Your task to perform on an android device: toggle javascript in the chrome app Image 0: 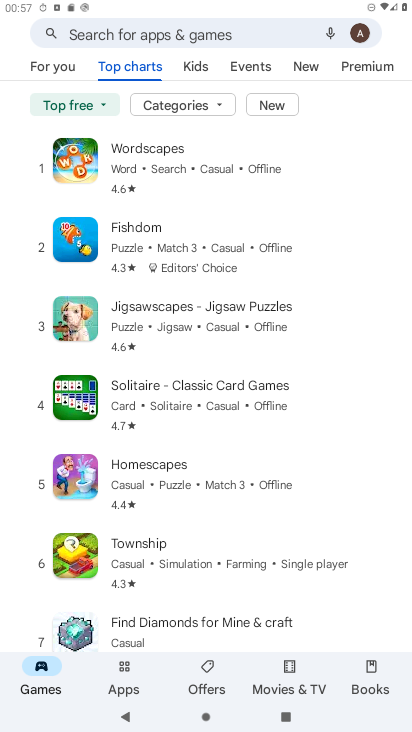
Step 0: press home button
Your task to perform on an android device: toggle javascript in the chrome app Image 1: 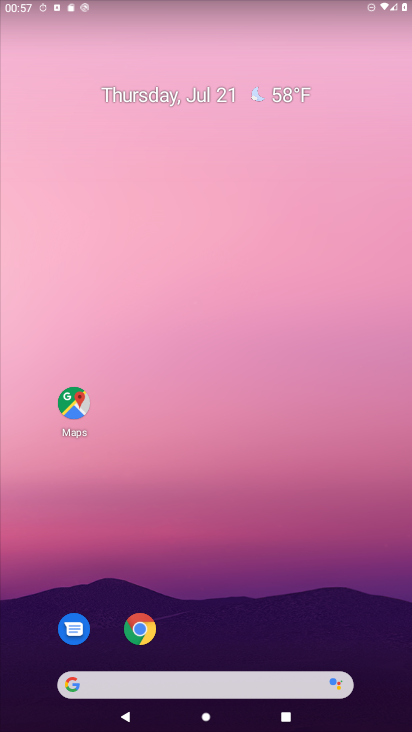
Step 1: click (132, 634)
Your task to perform on an android device: toggle javascript in the chrome app Image 2: 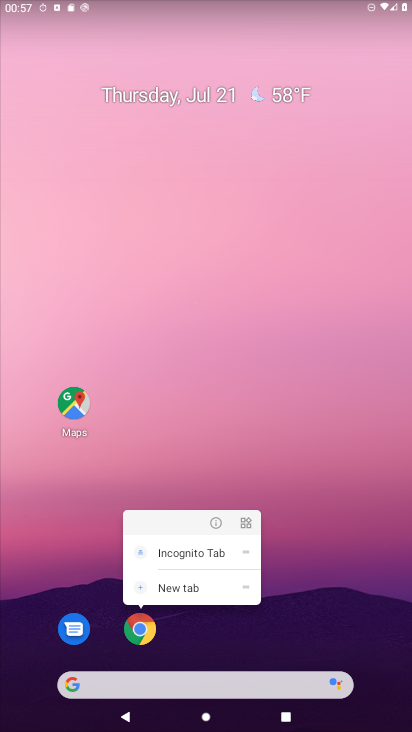
Step 2: click (145, 620)
Your task to perform on an android device: toggle javascript in the chrome app Image 3: 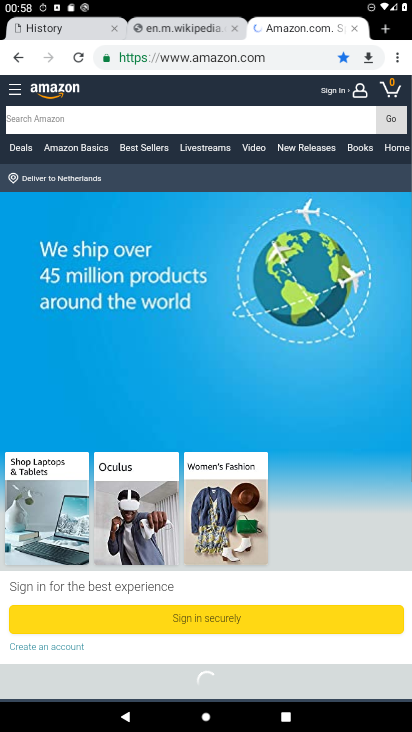
Step 3: click (390, 53)
Your task to perform on an android device: toggle javascript in the chrome app Image 4: 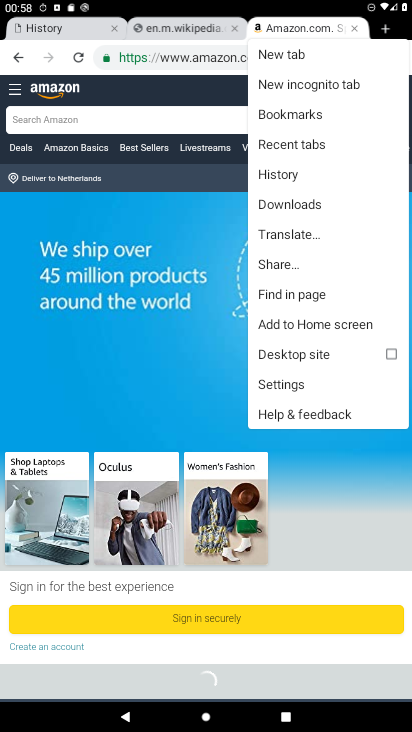
Step 4: click (282, 381)
Your task to perform on an android device: toggle javascript in the chrome app Image 5: 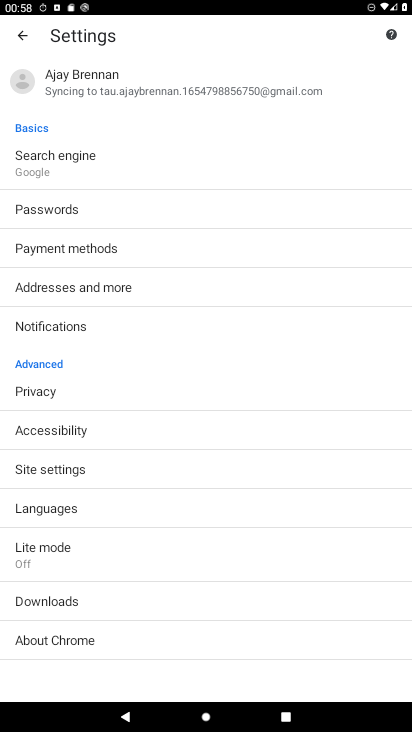
Step 5: drag from (83, 551) to (158, 440)
Your task to perform on an android device: toggle javascript in the chrome app Image 6: 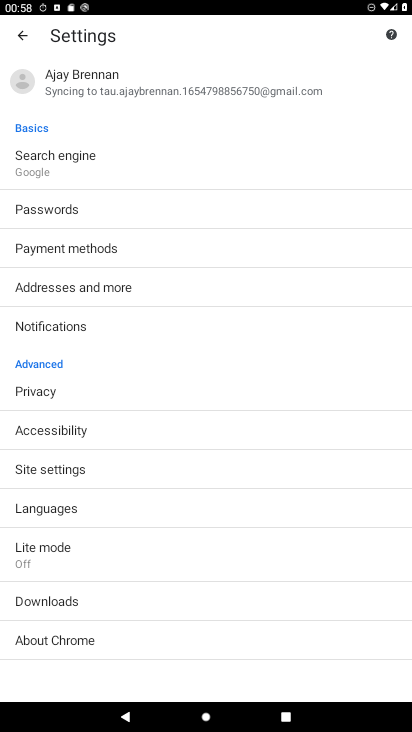
Step 6: click (129, 454)
Your task to perform on an android device: toggle javascript in the chrome app Image 7: 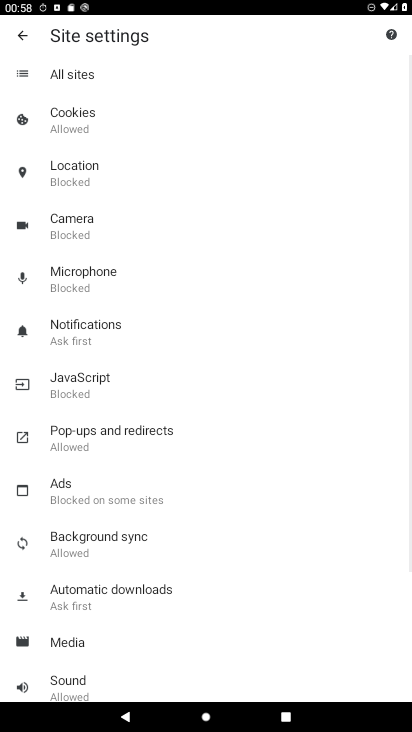
Step 7: click (126, 387)
Your task to perform on an android device: toggle javascript in the chrome app Image 8: 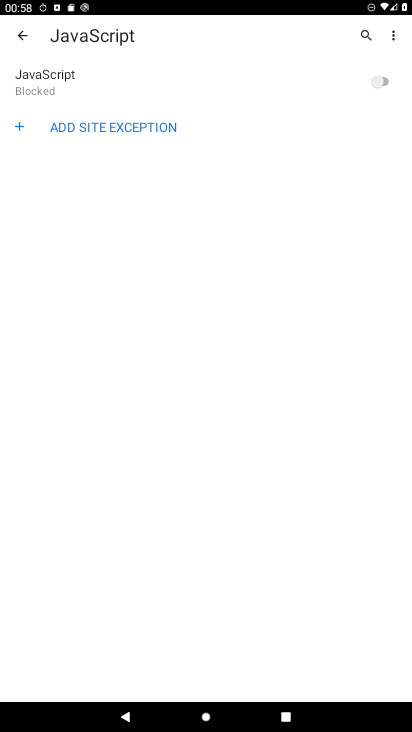
Step 8: click (381, 81)
Your task to perform on an android device: toggle javascript in the chrome app Image 9: 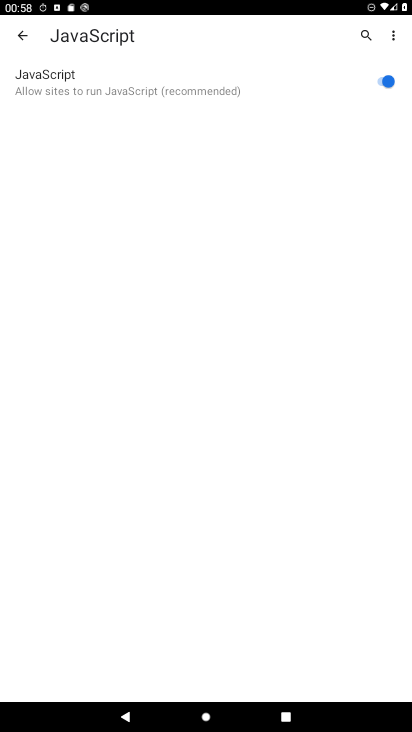
Step 9: task complete